Your task to perform on an android device: Go to Google maps Image 0: 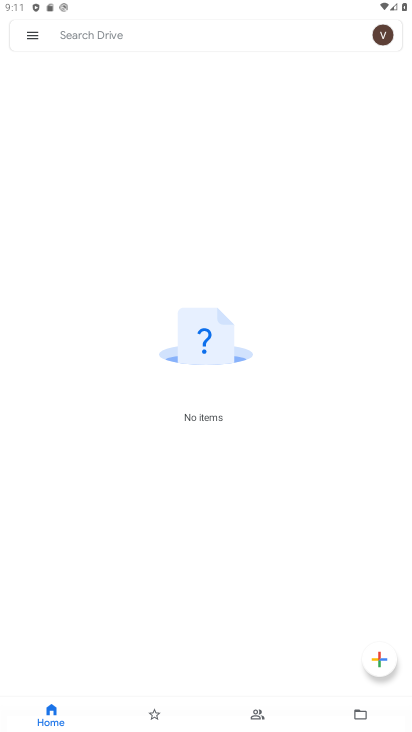
Step 0: press home button
Your task to perform on an android device: Go to Google maps Image 1: 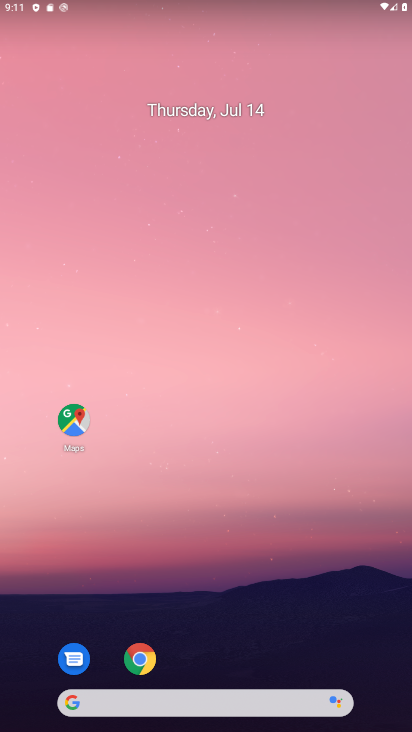
Step 1: drag from (181, 704) to (377, 276)
Your task to perform on an android device: Go to Google maps Image 2: 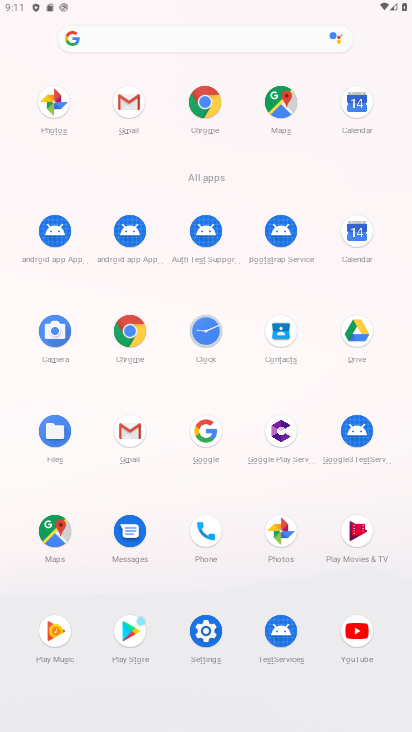
Step 2: click (56, 534)
Your task to perform on an android device: Go to Google maps Image 3: 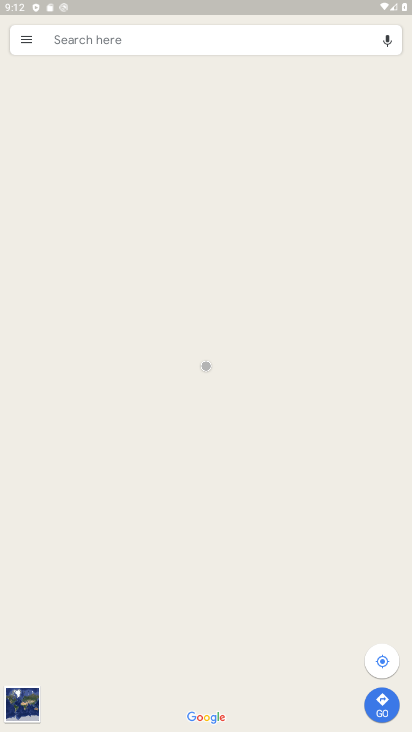
Step 3: task complete